Your task to perform on an android device: choose inbox layout in the gmail app Image 0: 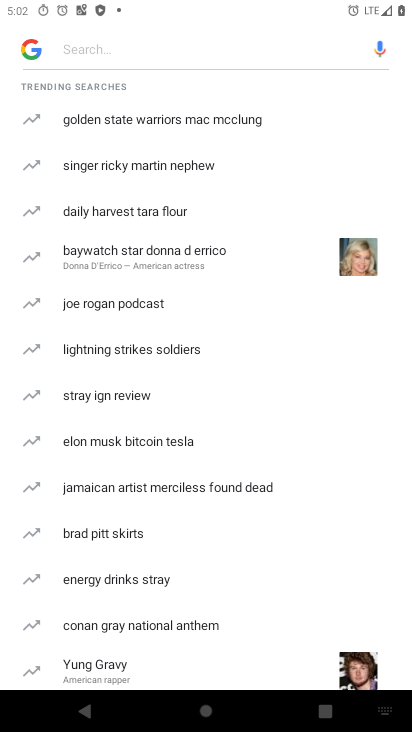
Step 0: press home button
Your task to perform on an android device: choose inbox layout in the gmail app Image 1: 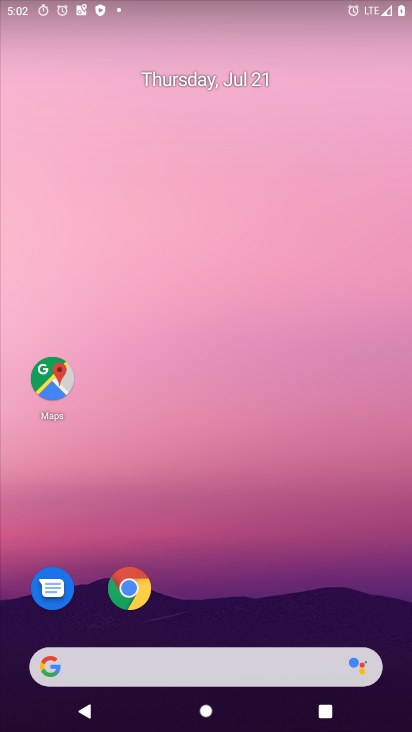
Step 1: drag from (229, 610) to (272, 112)
Your task to perform on an android device: choose inbox layout in the gmail app Image 2: 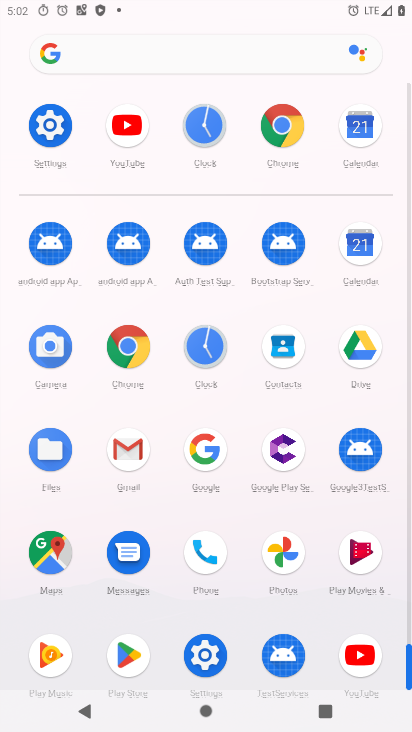
Step 2: click (128, 438)
Your task to perform on an android device: choose inbox layout in the gmail app Image 3: 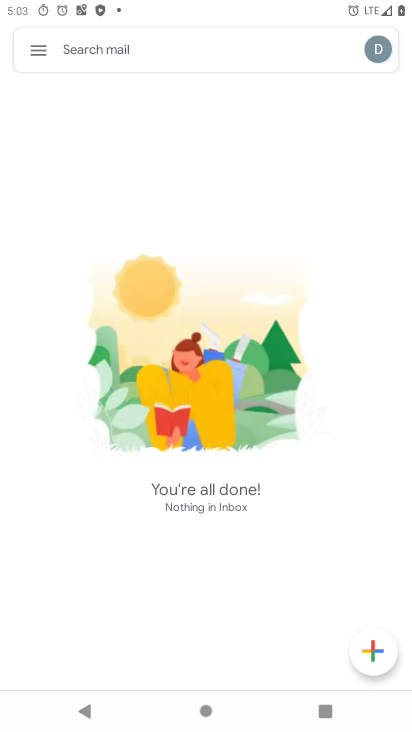
Step 3: click (34, 55)
Your task to perform on an android device: choose inbox layout in the gmail app Image 4: 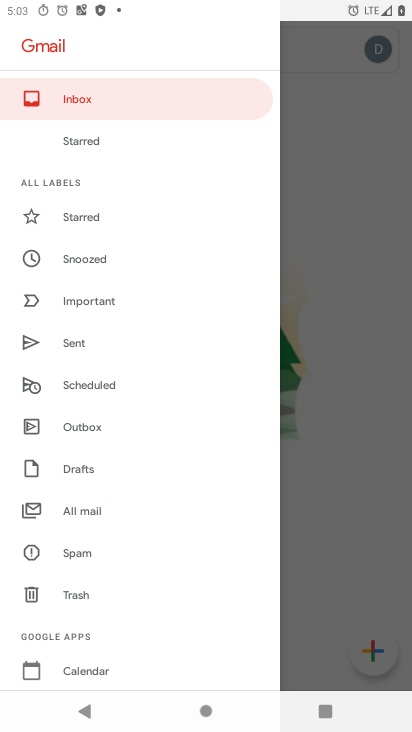
Step 4: drag from (94, 588) to (154, 276)
Your task to perform on an android device: choose inbox layout in the gmail app Image 5: 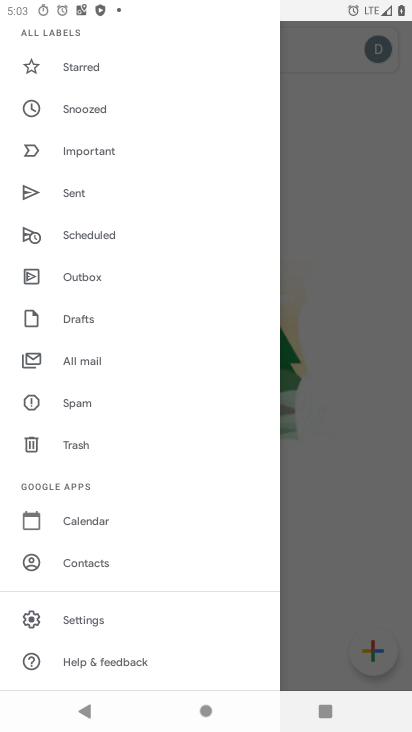
Step 5: click (82, 620)
Your task to perform on an android device: choose inbox layout in the gmail app Image 6: 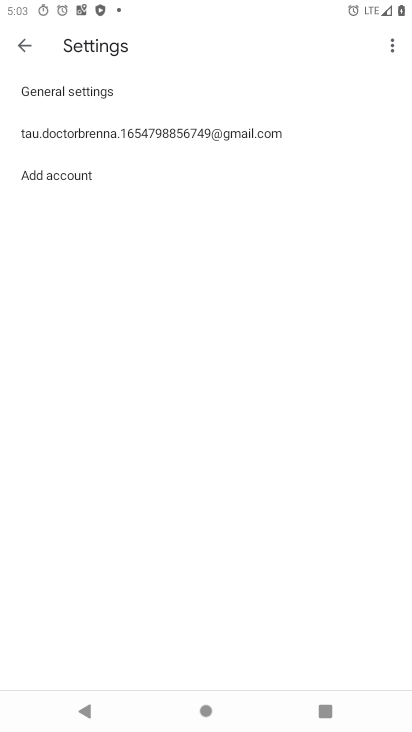
Step 6: click (163, 135)
Your task to perform on an android device: choose inbox layout in the gmail app Image 7: 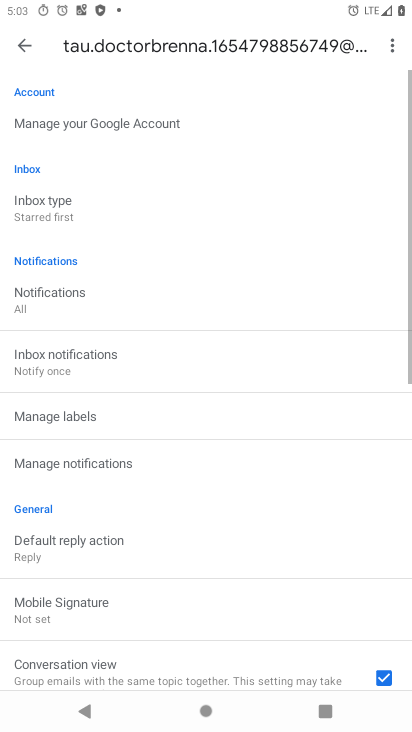
Step 7: click (51, 210)
Your task to perform on an android device: choose inbox layout in the gmail app Image 8: 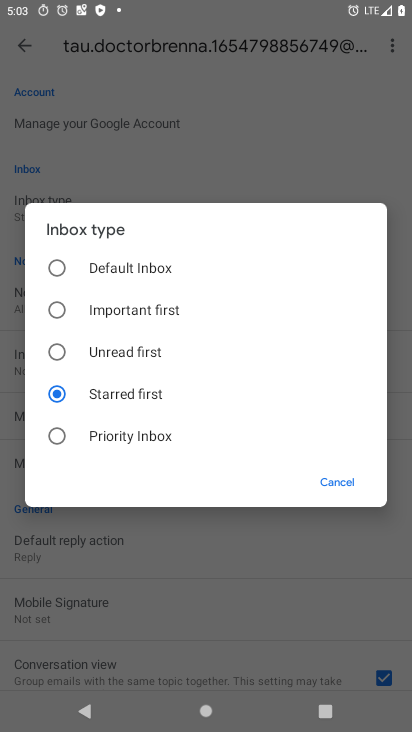
Step 8: click (92, 429)
Your task to perform on an android device: choose inbox layout in the gmail app Image 9: 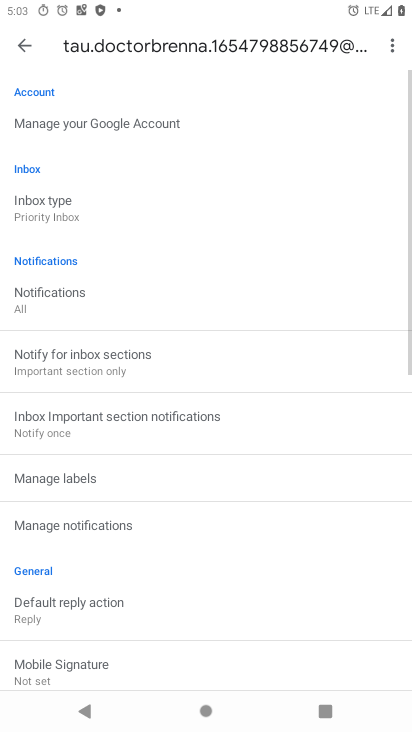
Step 9: task complete